Your task to perform on an android device: turn off notifications settings in the gmail app Image 0: 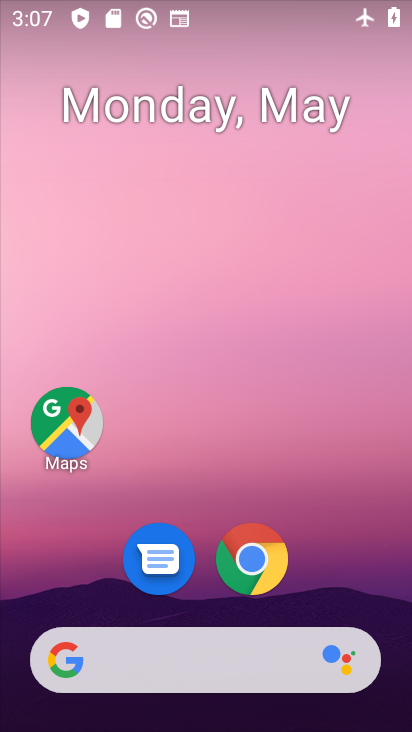
Step 0: drag from (102, 540) to (203, 196)
Your task to perform on an android device: turn off notifications settings in the gmail app Image 1: 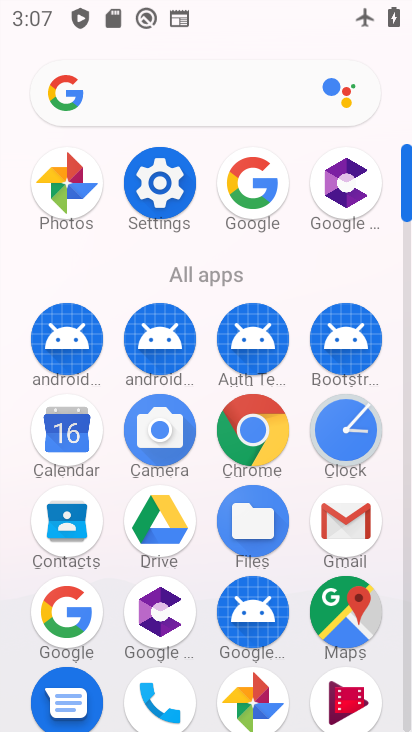
Step 1: drag from (149, 612) to (232, 388)
Your task to perform on an android device: turn off notifications settings in the gmail app Image 2: 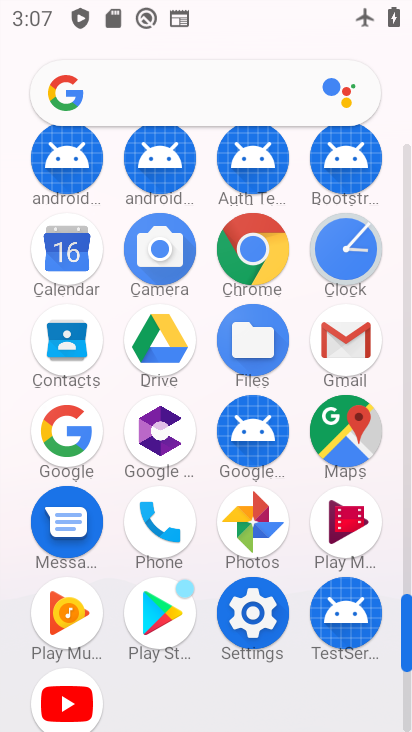
Step 2: click (352, 354)
Your task to perform on an android device: turn off notifications settings in the gmail app Image 3: 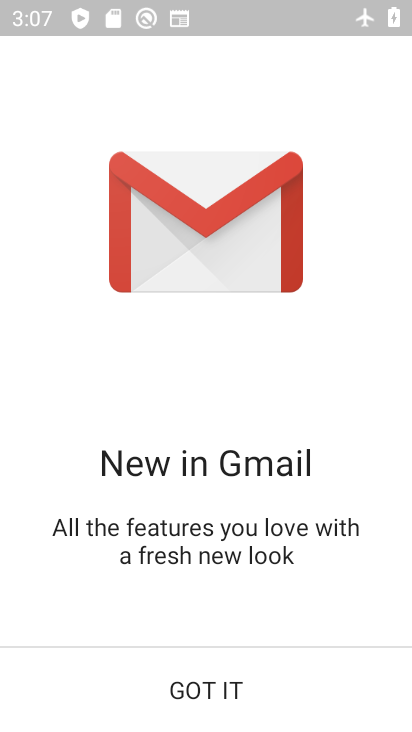
Step 3: click (212, 708)
Your task to perform on an android device: turn off notifications settings in the gmail app Image 4: 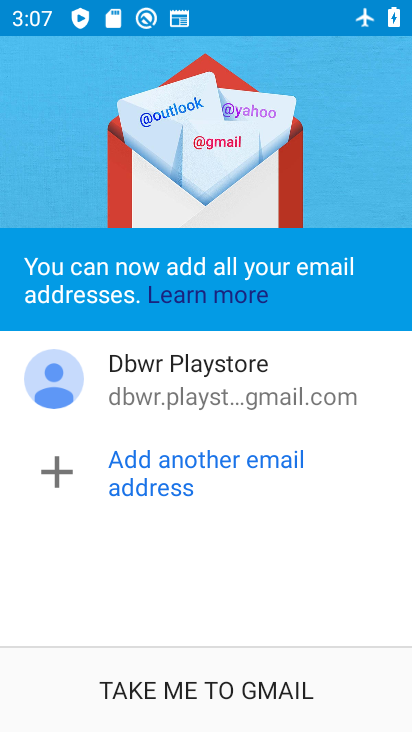
Step 4: click (246, 696)
Your task to perform on an android device: turn off notifications settings in the gmail app Image 5: 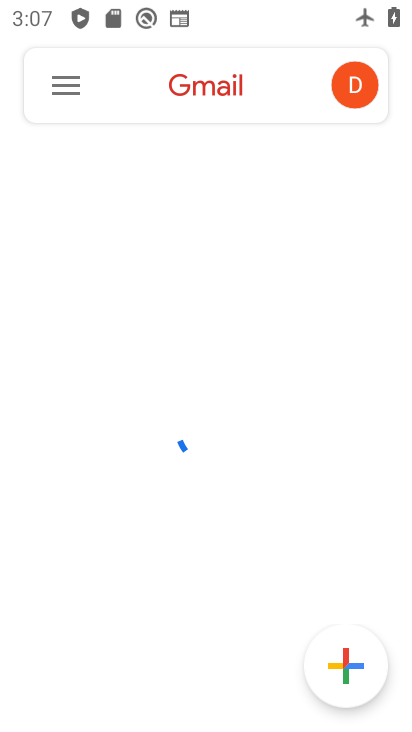
Step 5: click (64, 89)
Your task to perform on an android device: turn off notifications settings in the gmail app Image 6: 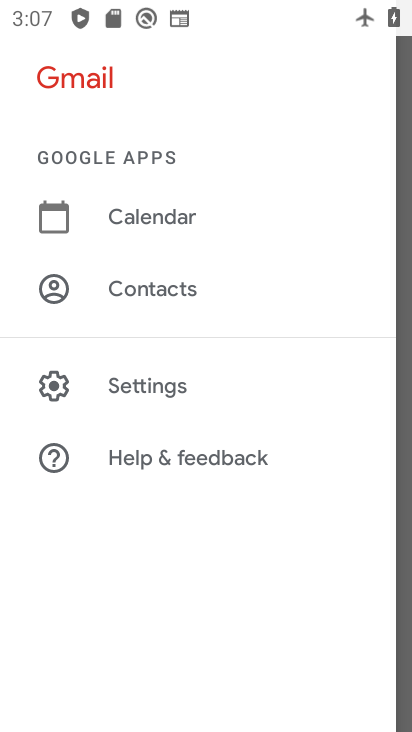
Step 6: click (206, 372)
Your task to perform on an android device: turn off notifications settings in the gmail app Image 7: 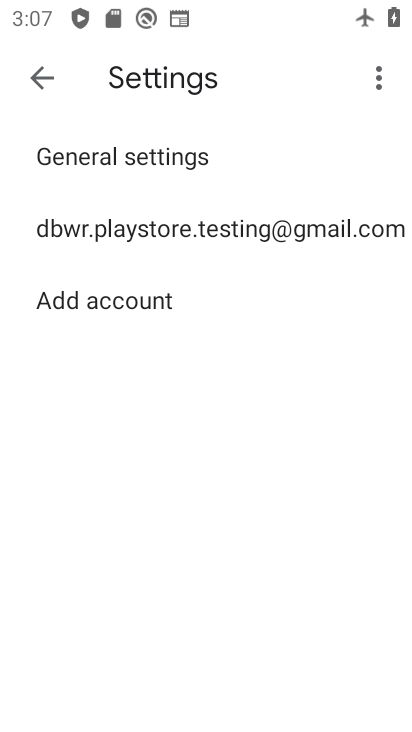
Step 7: click (253, 232)
Your task to perform on an android device: turn off notifications settings in the gmail app Image 8: 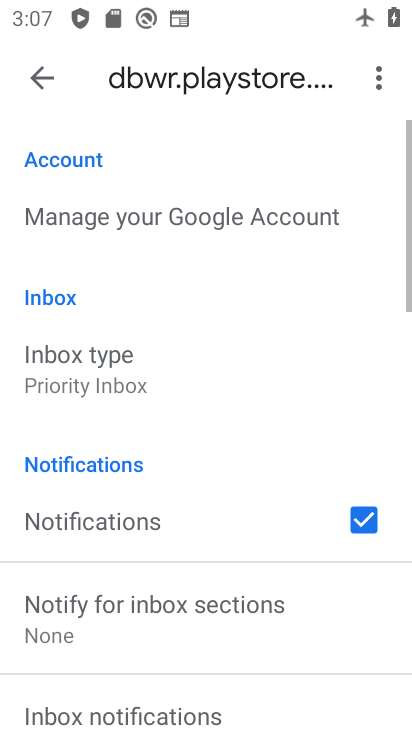
Step 8: drag from (162, 603) to (250, 317)
Your task to perform on an android device: turn off notifications settings in the gmail app Image 9: 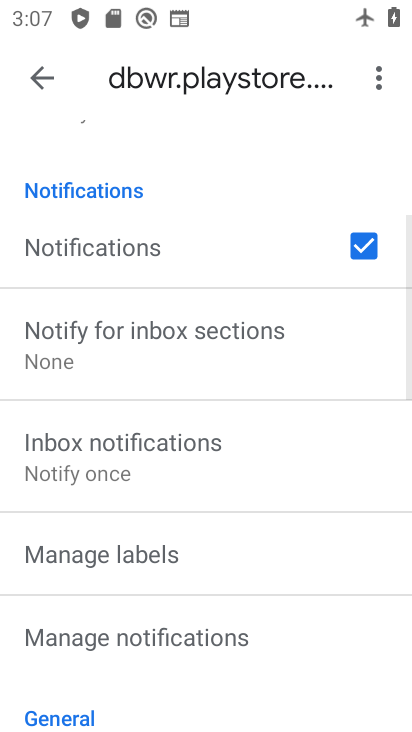
Step 9: click (179, 648)
Your task to perform on an android device: turn off notifications settings in the gmail app Image 10: 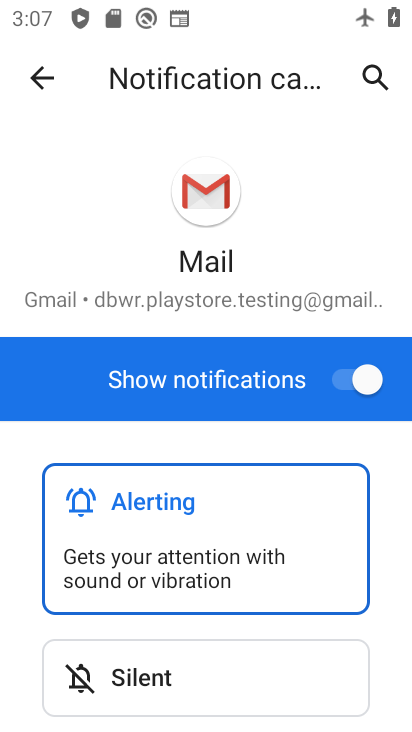
Step 10: click (343, 377)
Your task to perform on an android device: turn off notifications settings in the gmail app Image 11: 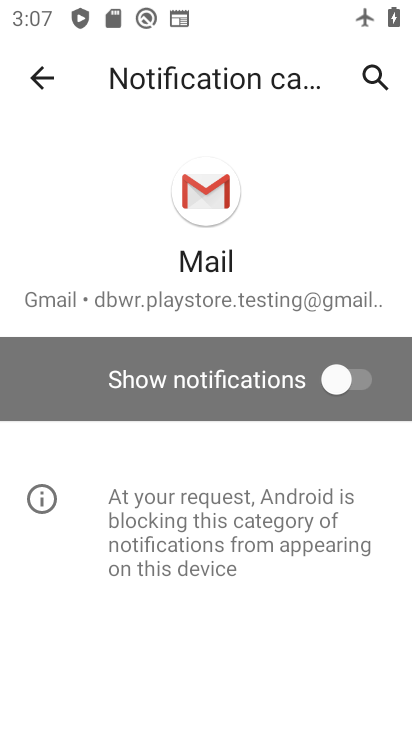
Step 11: task complete